Your task to perform on an android device: Show the shopping cart on costco. Image 0: 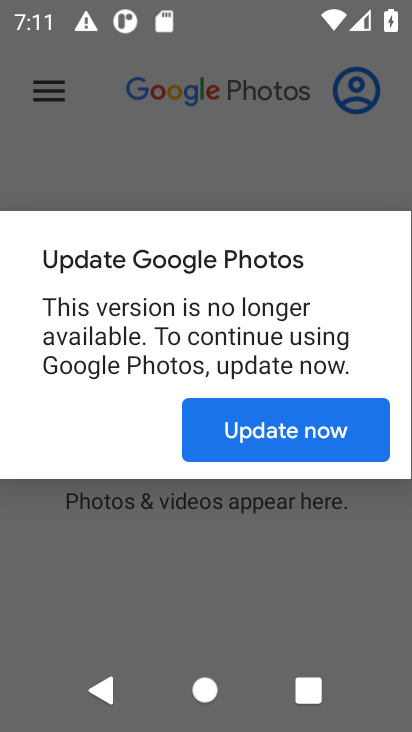
Step 0: press home button
Your task to perform on an android device: Show the shopping cart on costco. Image 1: 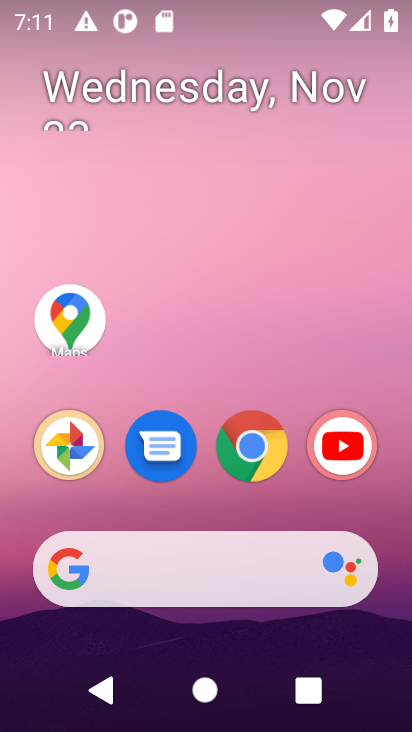
Step 1: click (232, 586)
Your task to perform on an android device: Show the shopping cart on costco. Image 2: 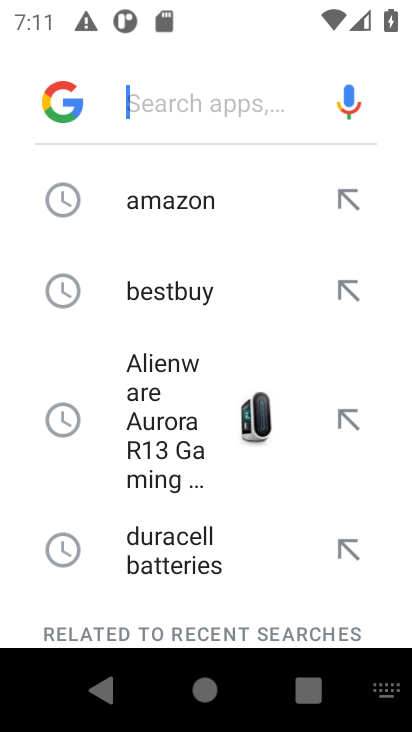
Step 2: type "costco.com"
Your task to perform on an android device: Show the shopping cart on costco. Image 3: 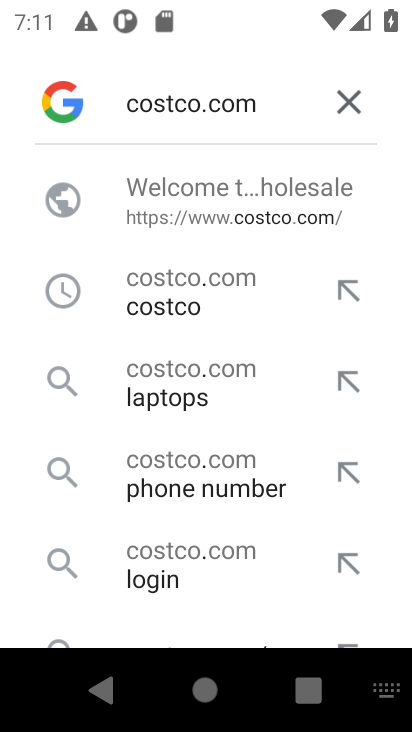
Step 3: click (169, 230)
Your task to perform on an android device: Show the shopping cart on costco. Image 4: 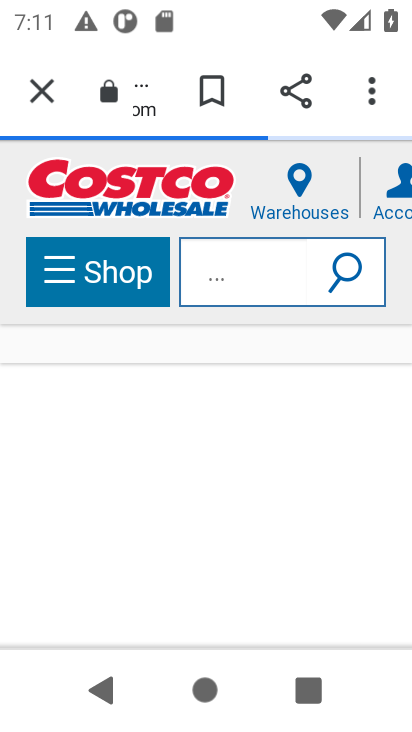
Step 4: click (226, 282)
Your task to perform on an android device: Show the shopping cart on costco. Image 5: 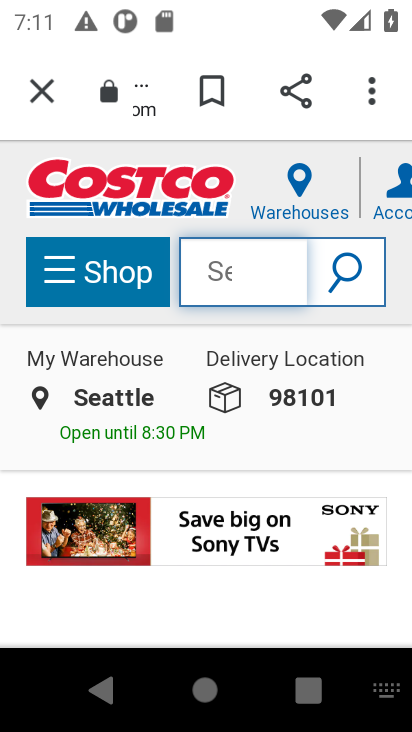
Step 5: drag from (408, 241) to (154, 259)
Your task to perform on an android device: Show the shopping cart on costco. Image 6: 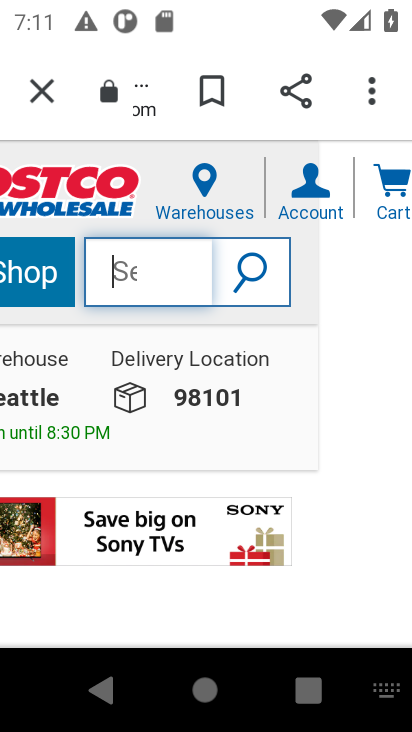
Step 6: click (397, 217)
Your task to perform on an android device: Show the shopping cart on costco. Image 7: 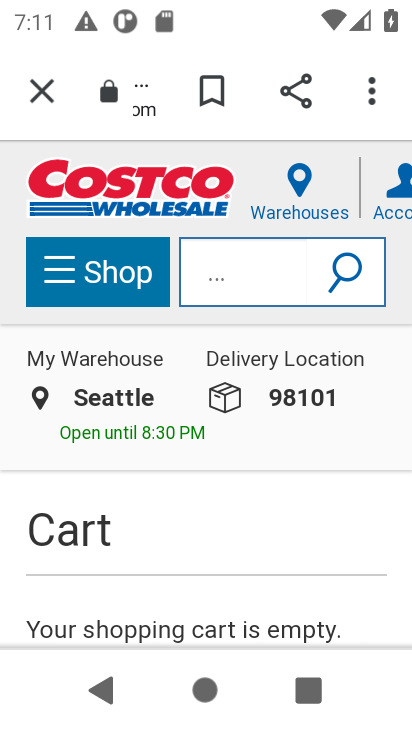
Step 7: task complete